Your task to perform on an android device: remove spam from my inbox in the gmail app Image 0: 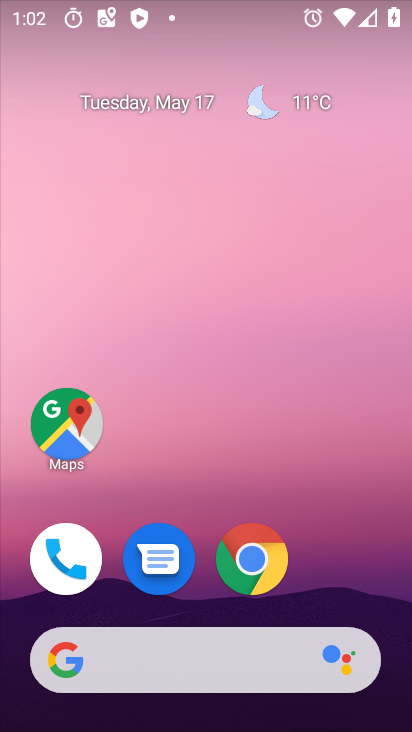
Step 0: drag from (353, 524) to (351, 57)
Your task to perform on an android device: remove spam from my inbox in the gmail app Image 1: 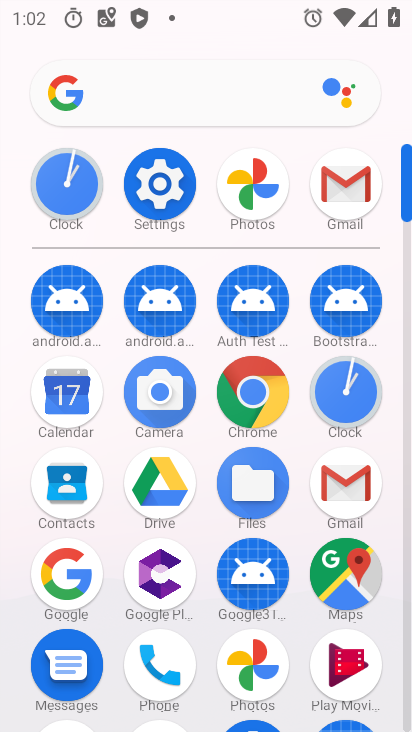
Step 1: click (349, 206)
Your task to perform on an android device: remove spam from my inbox in the gmail app Image 2: 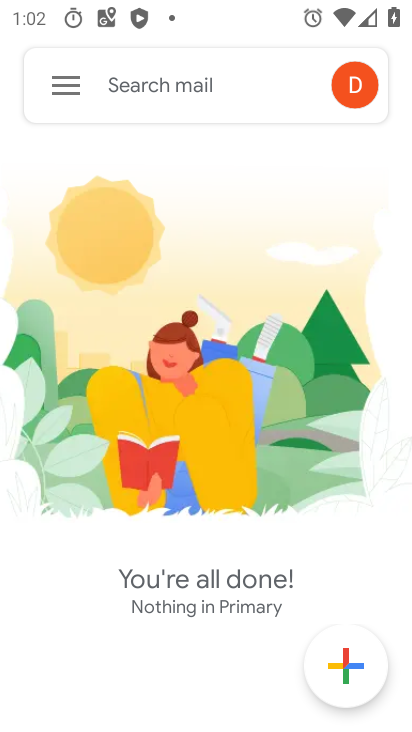
Step 2: click (76, 74)
Your task to perform on an android device: remove spam from my inbox in the gmail app Image 3: 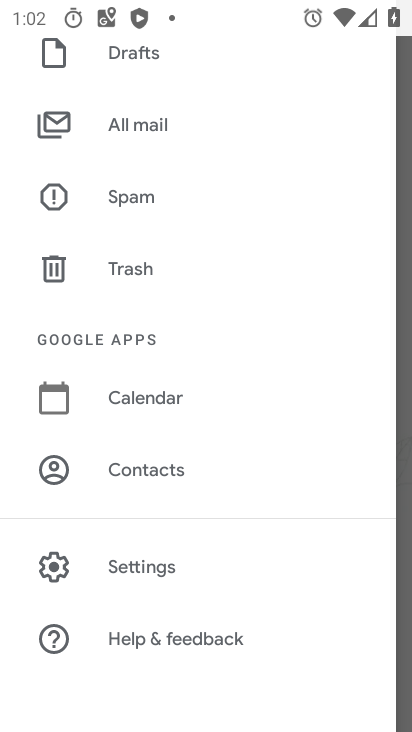
Step 3: drag from (194, 196) to (176, 435)
Your task to perform on an android device: remove spam from my inbox in the gmail app Image 4: 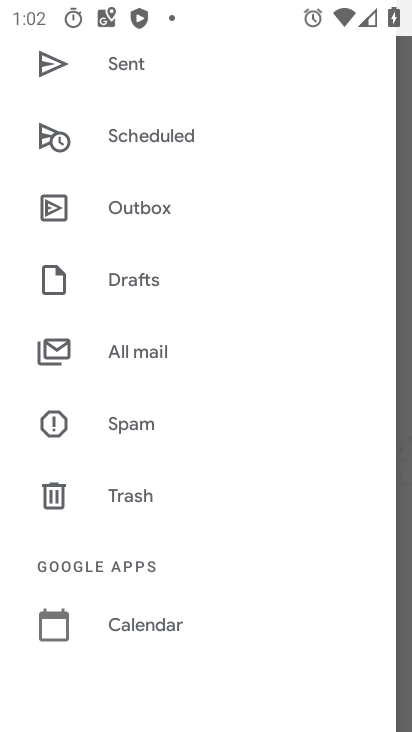
Step 4: click (134, 433)
Your task to perform on an android device: remove spam from my inbox in the gmail app Image 5: 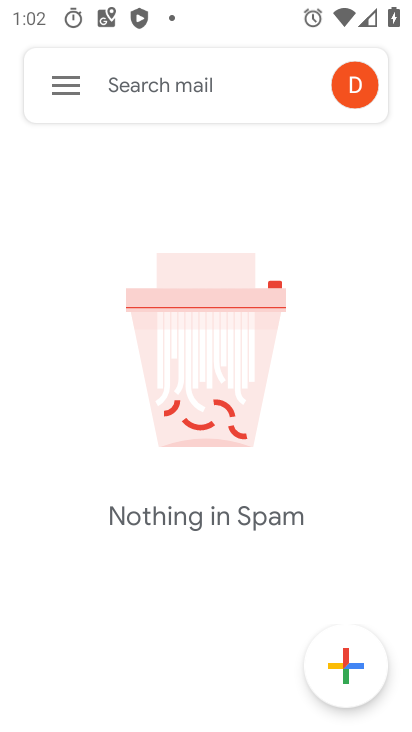
Step 5: click (75, 95)
Your task to perform on an android device: remove spam from my inbox in the gmail app Image 6: 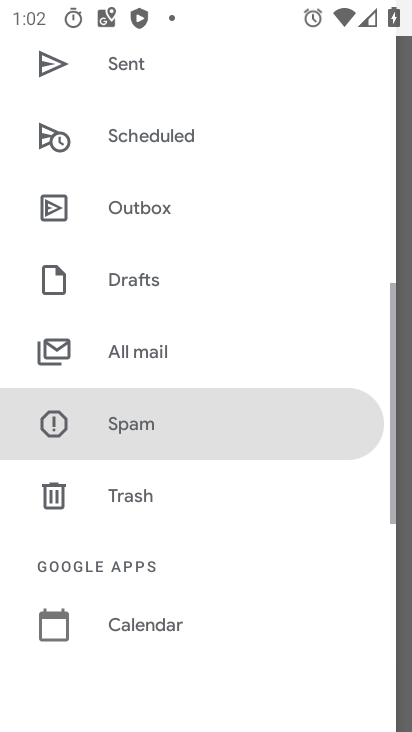
Step 6: drag from (163, 88) to (111, 509)
Your task to perform on an android device: remove spam from my inbox in the gmail app Image 7: 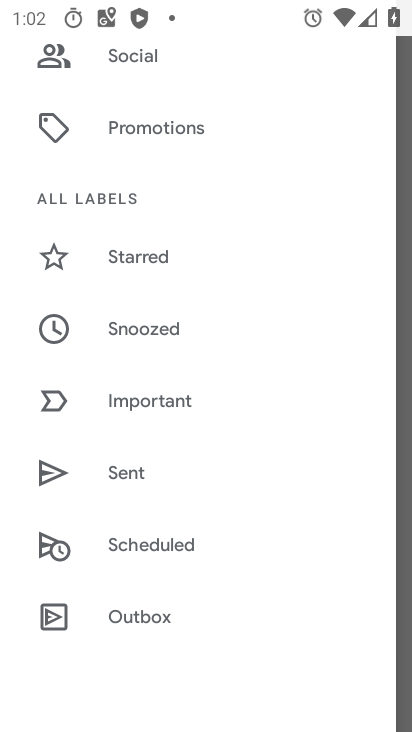
Step 7: drag from (178, 132) to (123, 515)
Your task to perform on an android device: remove spam from my inbox in the gmail app Image 8: 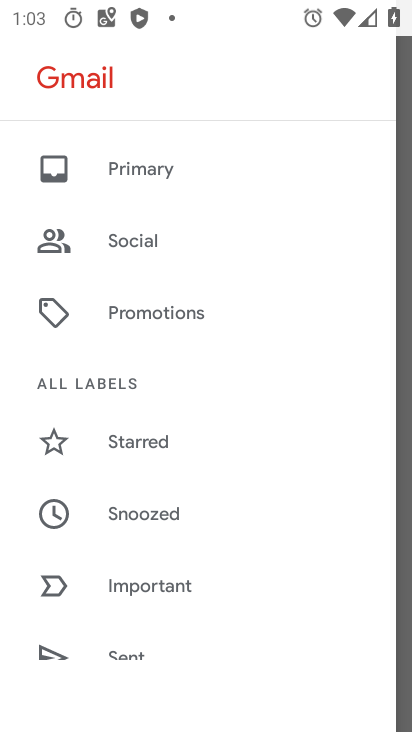
Step 8: click (151, 173)
Your task to perform on an android device: remove spam from my inbox in the gmail app Image 9: 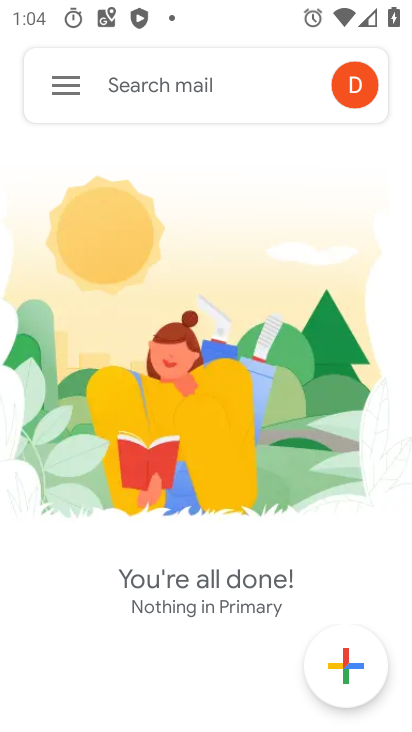
Step 9: task complete